Your task to perform on an android device: change alarm snooze length Image 0: 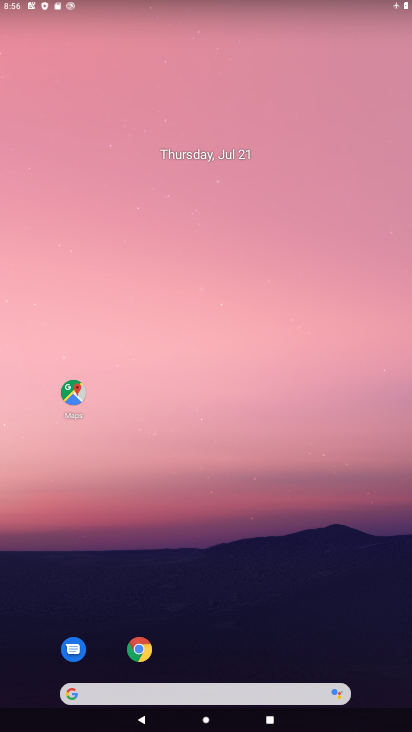
Step 0: drag from (238, 586) to (262, 66)
Your task to perform on an android device: change alarm snooze length Image 1: 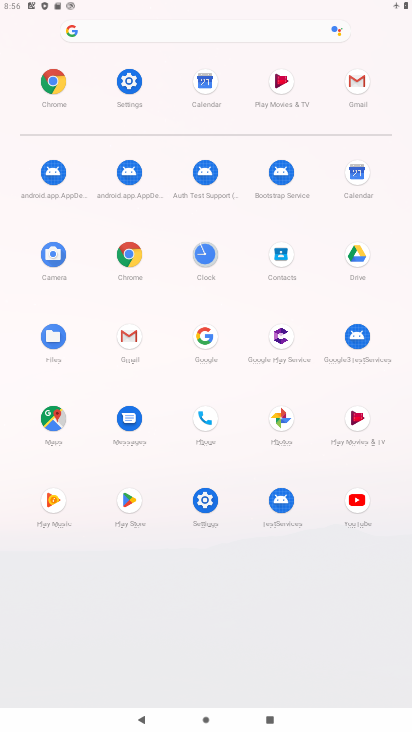
Step 1: click (205, 260)
Your task to perform on an android device: change alarm snooze length Image 2: 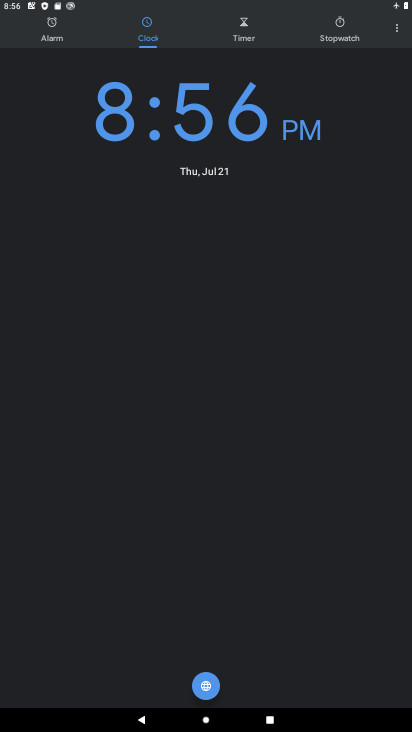
Step 2: click (391, 36)
Your task to perform on an android device: change alarm snooze length Image 3: 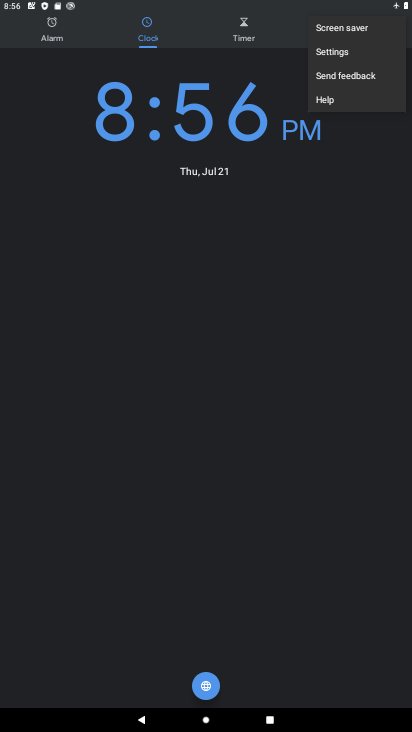
Step 3: click (344, 58)
Your task to perform on an android device: change alarm snooze length Image 4: 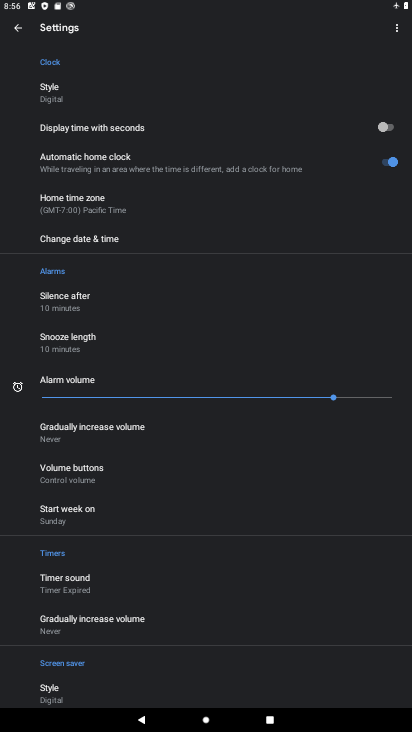
Step 4: click (101, 348)
Your task to perform on an android device: change alarm snooze length Image 5: 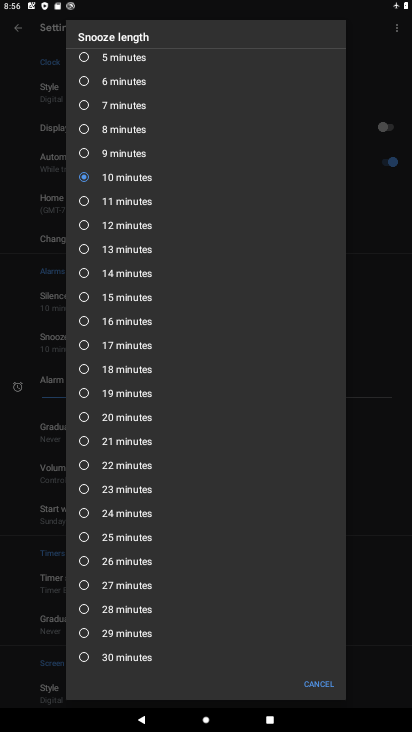
Step 5: click (101, 305)
Your task to perform on an android device: change alarm snooze length Image 6: 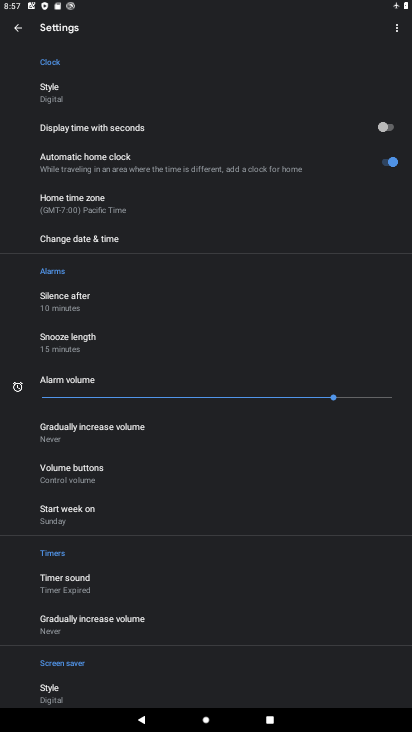
Step 6: task complete